Your task to perform on an android device: Open Amazon Image 0: 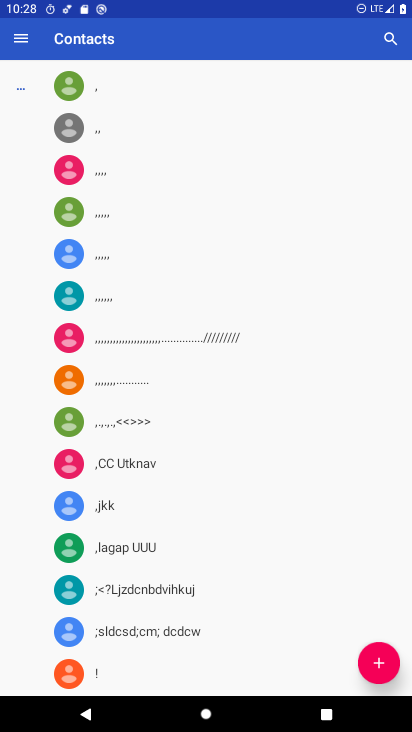
Step 0: press home button
Your task to perform on an android device: Open Amazon Image 1: 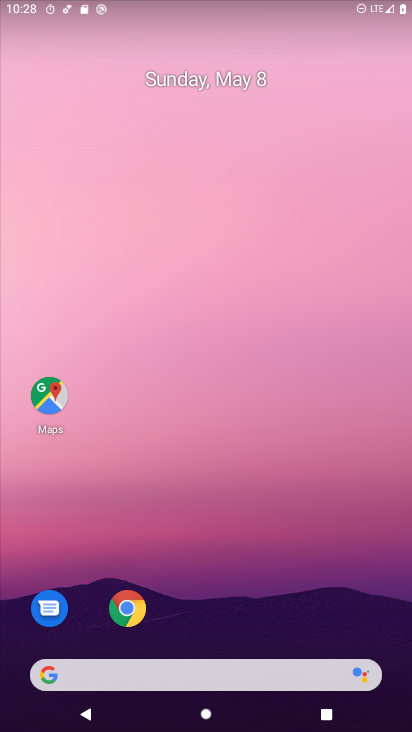
Step 1: click (126, 613)
Your task to perform on an android device: Open Amazon Image 2: 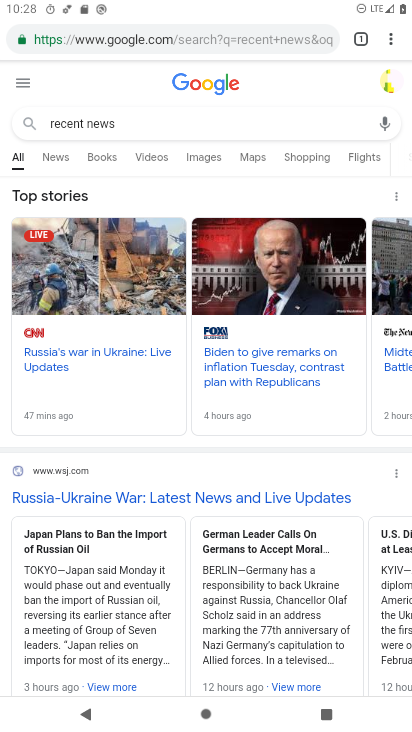
Step 2: click (161, 38)
Your task to perform on an android device: Open Amazon Image 3: 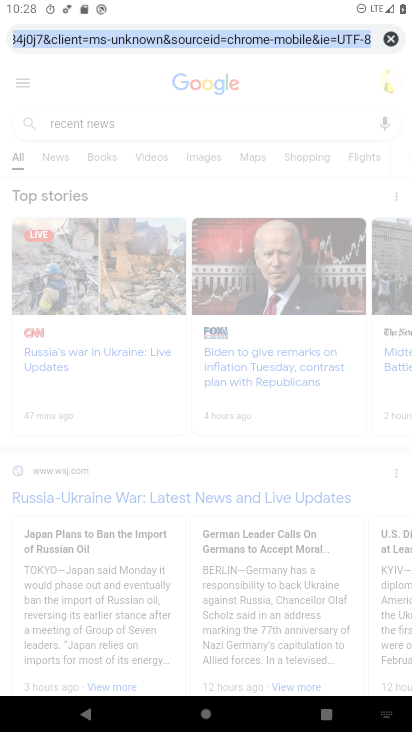
Step 3: type "Amazon"
Your task to perform on an android device: Open Amazon Image 4: 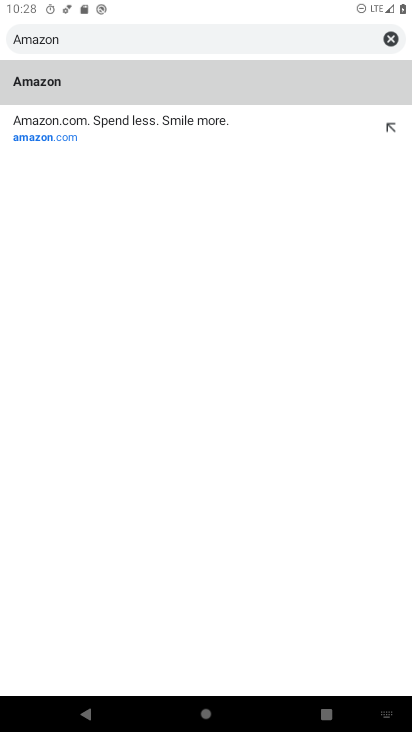
Step 4: click (170, 86)
Your task to perform on an android device: Open Amazon Image 5: 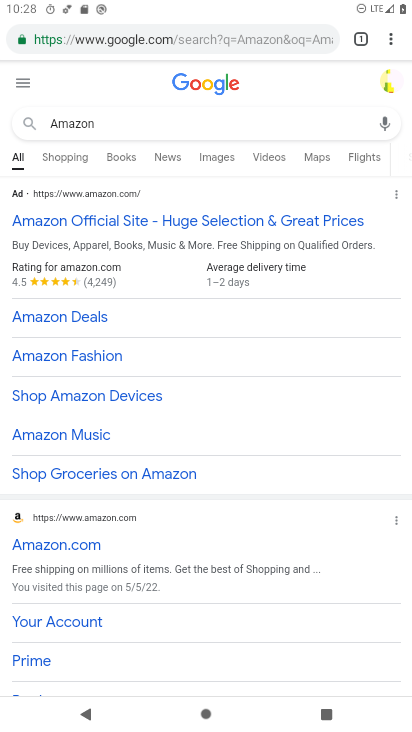
Step 5: task complete